Your task to perform on an android device: install app "Fetch Rewards" Image 0: 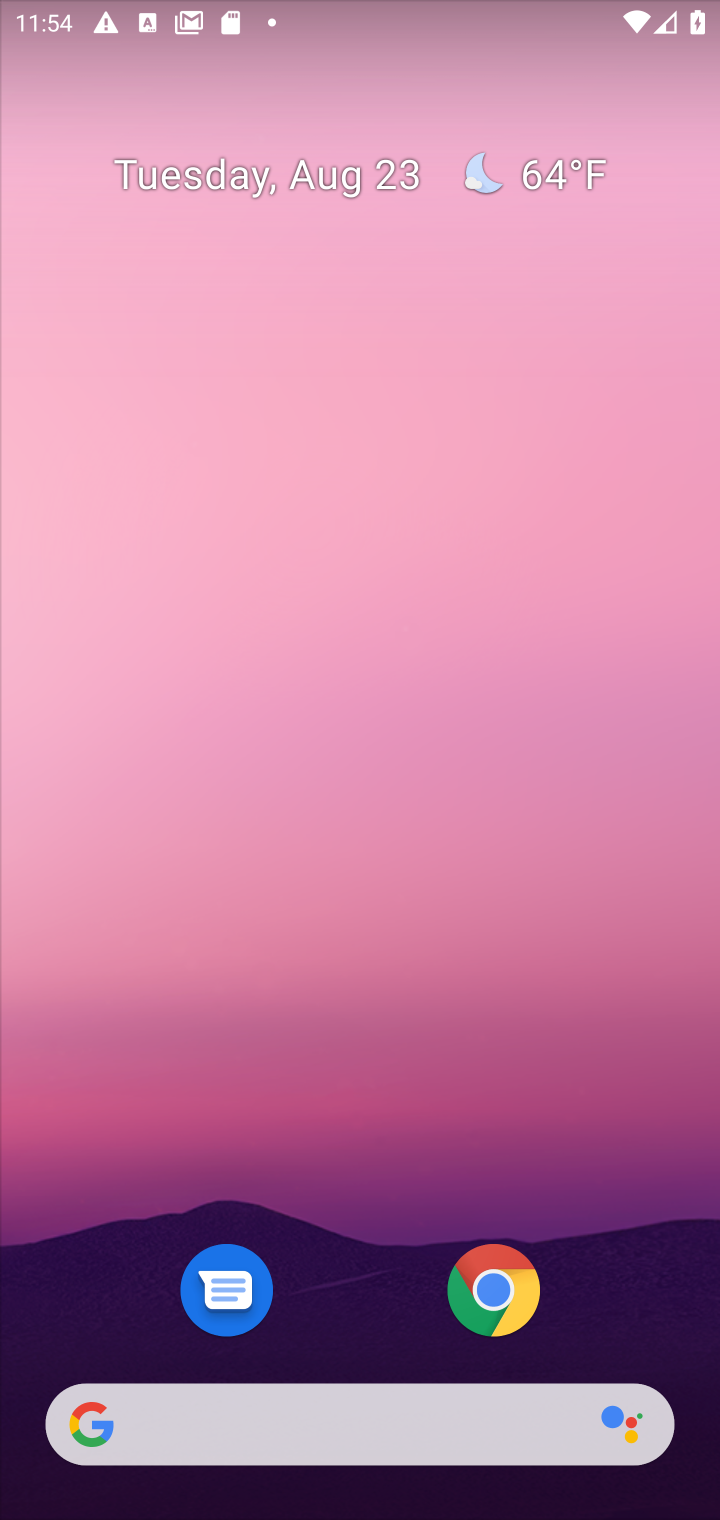
Step 0: drag from (341, 589) to (341, 89)
Your task to perform on an android device: install app "Fetch Rewards" Image 1: 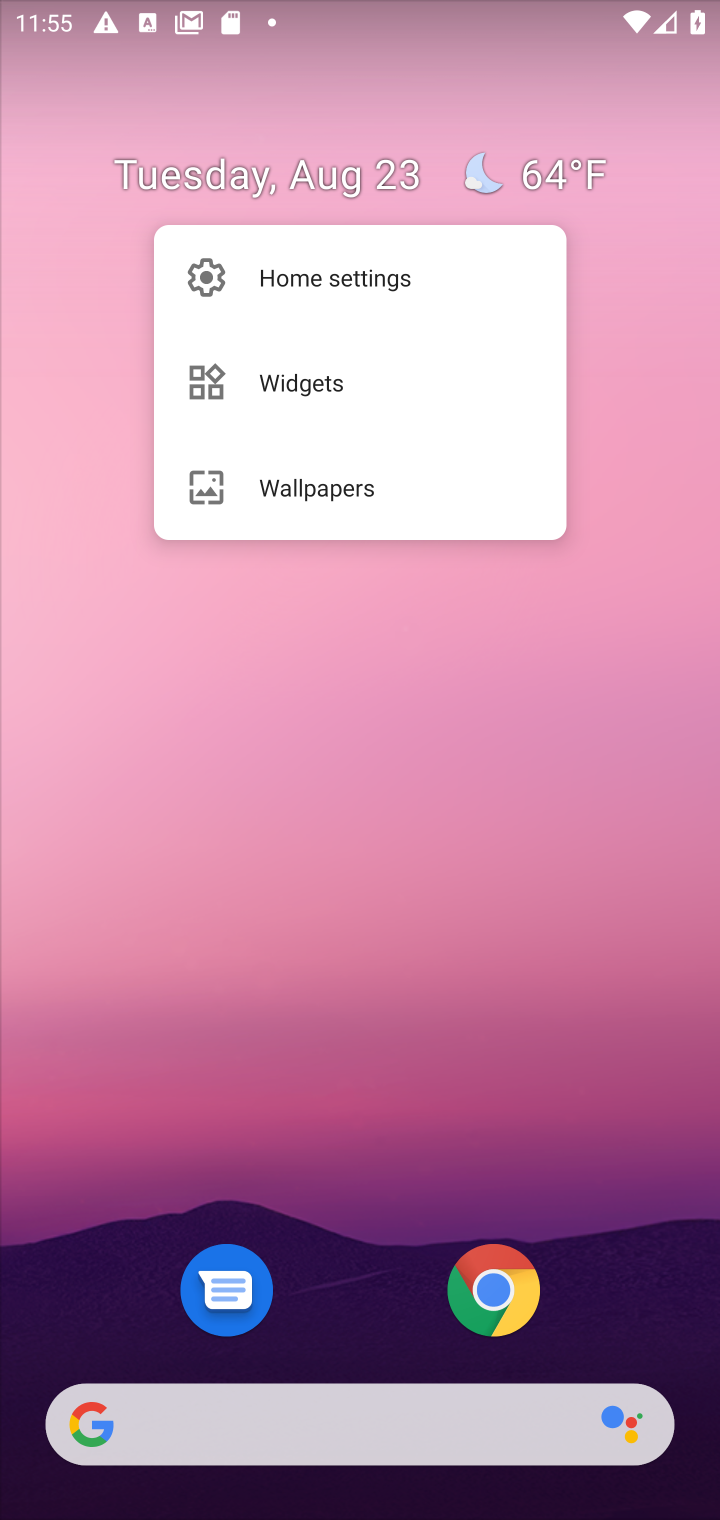
Step 1: click (442, 990)
Your task to perform on an android device: install app "Fetch Rewards" Image 2: 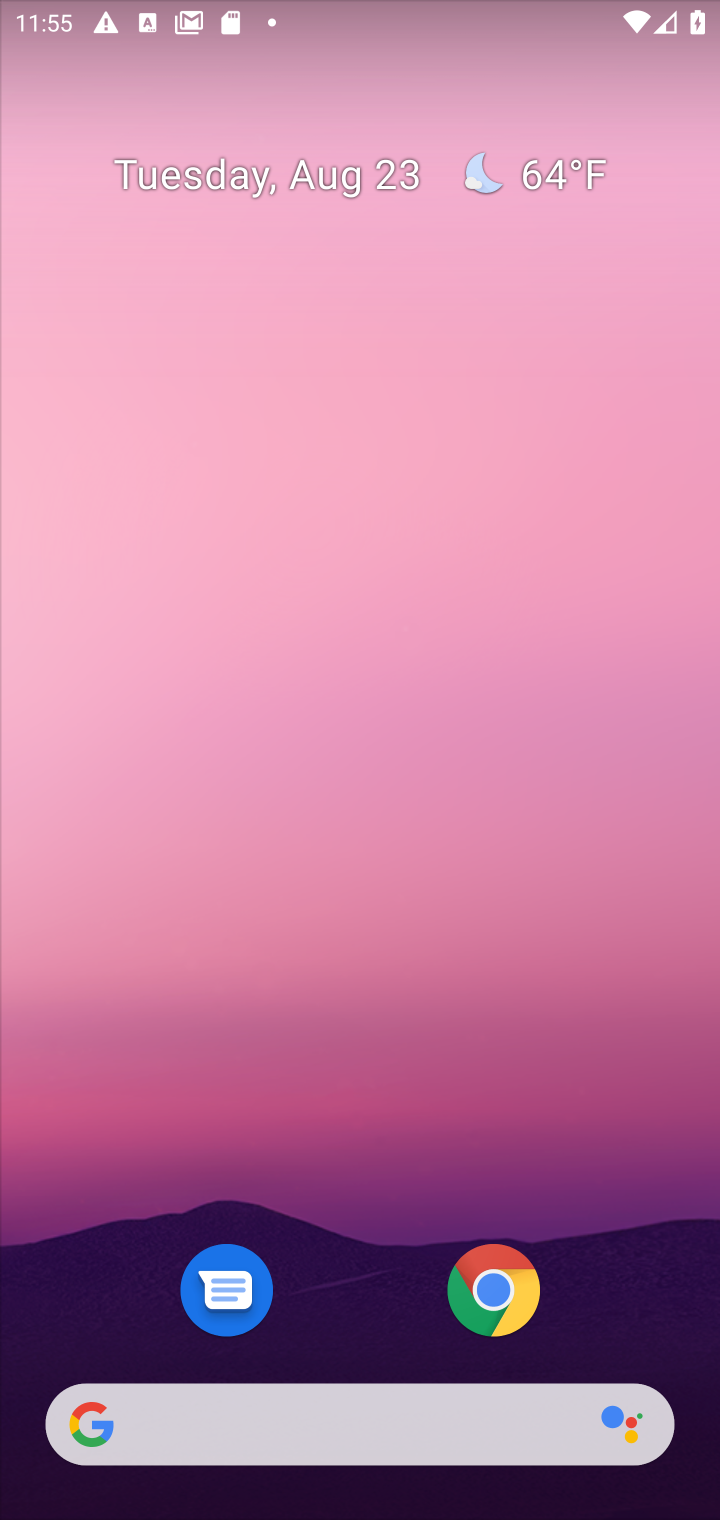
Step 2: drag from (348, 1055) to (346, 70)
Your task to perform on an android device: install app "Fetch Rewards" Image 3: 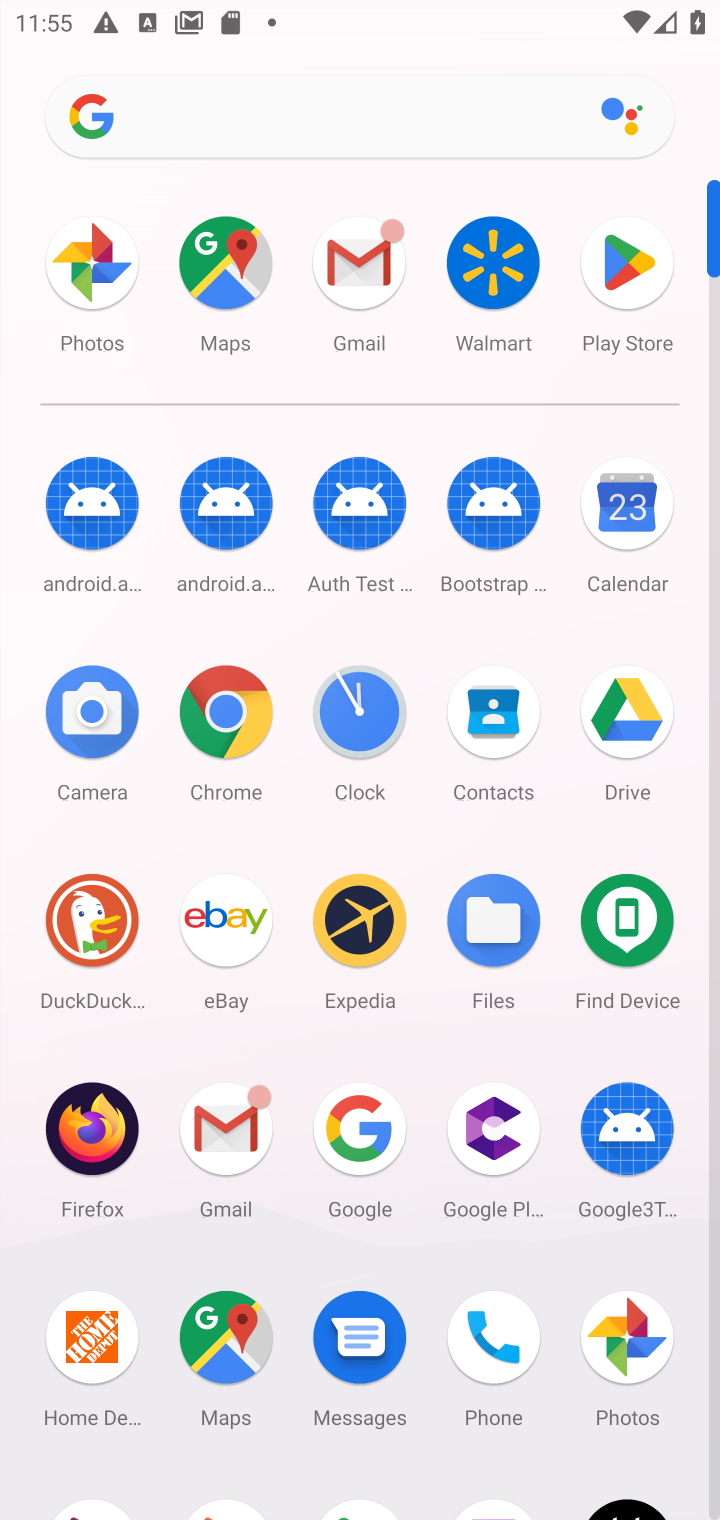
Step 3: click (622, 261)
Your task to perform on an android device: install app "Fetch Rewards" Image 4: 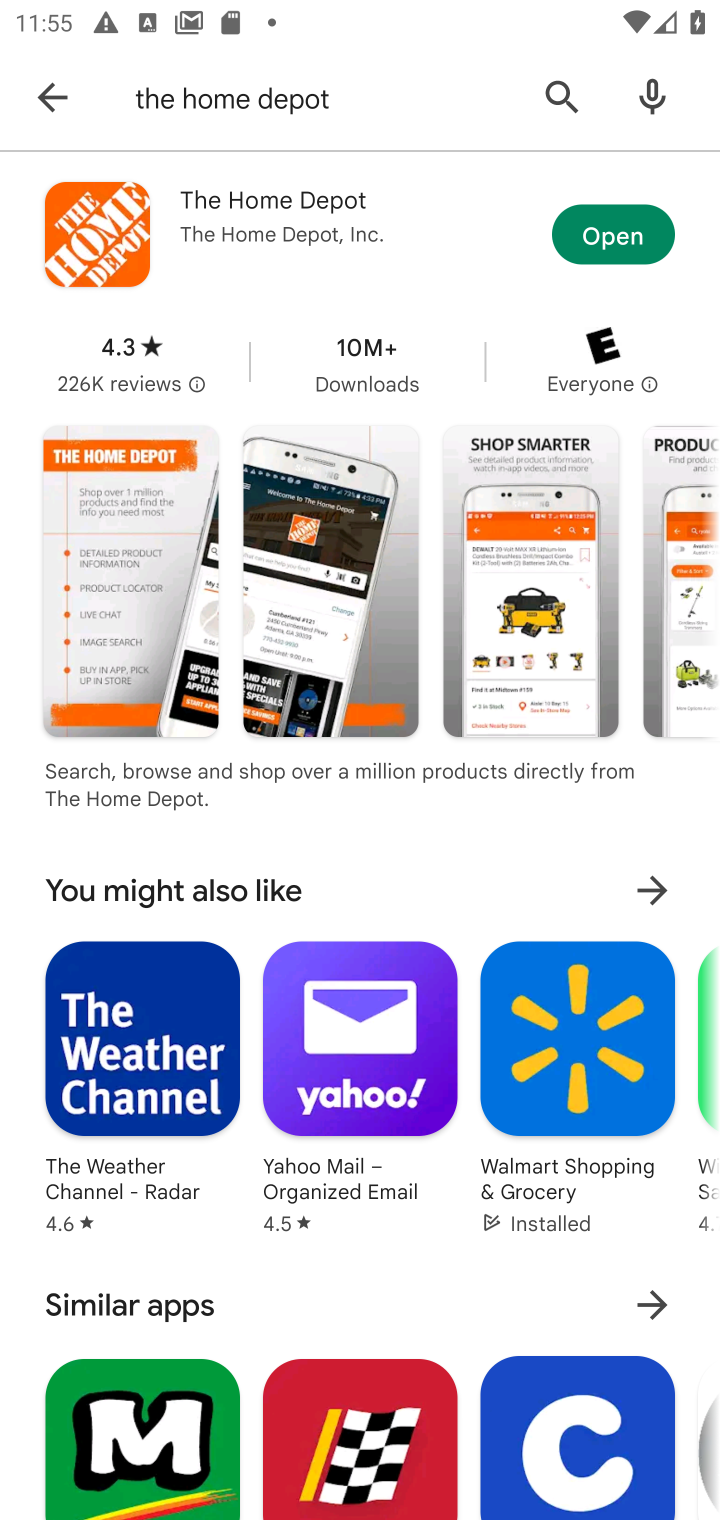
Step 4: click (548, 92)
Your task to perform on an android device: install app "Fetch Rewards" Image 5: 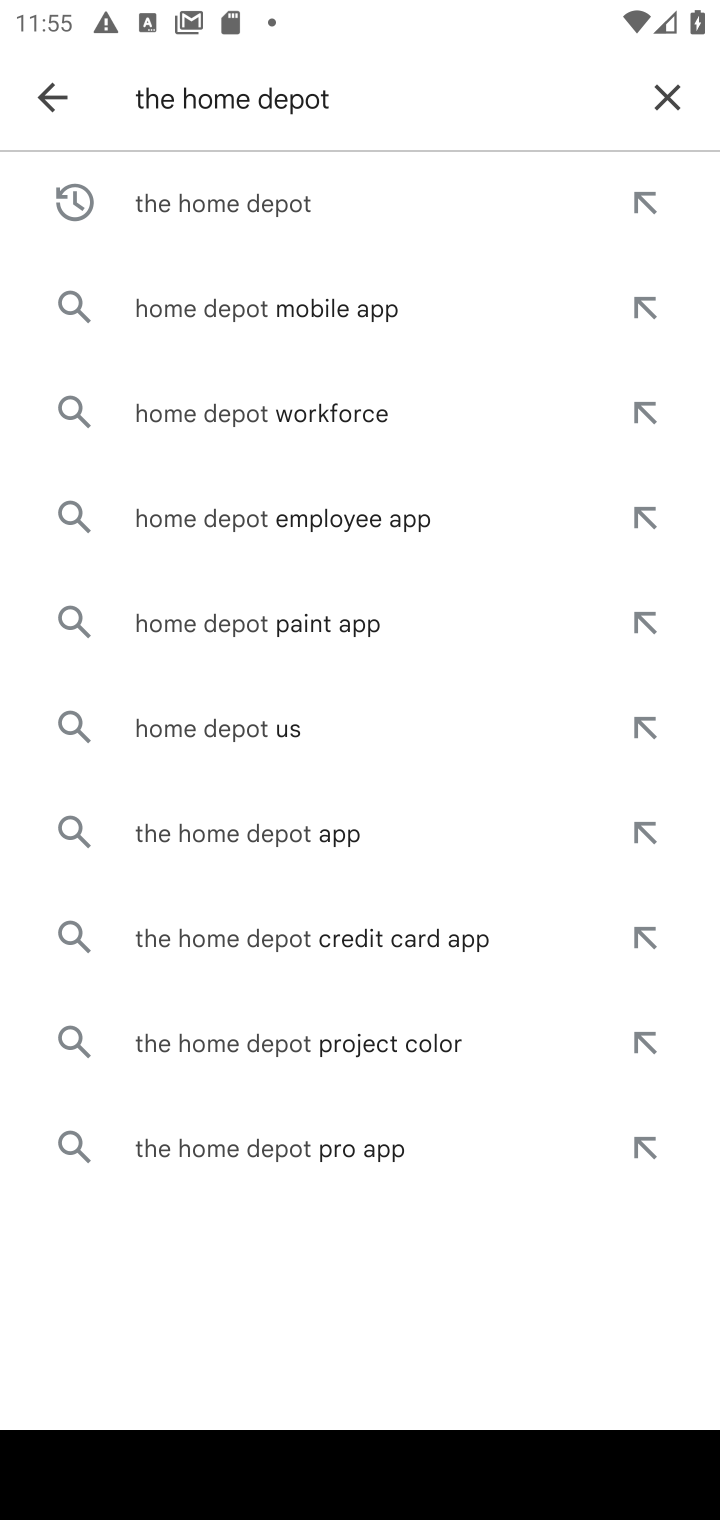
Step 5: click (661, 92)
Your task to perform on an android device: install app "Fetch Rewards" Image 6: 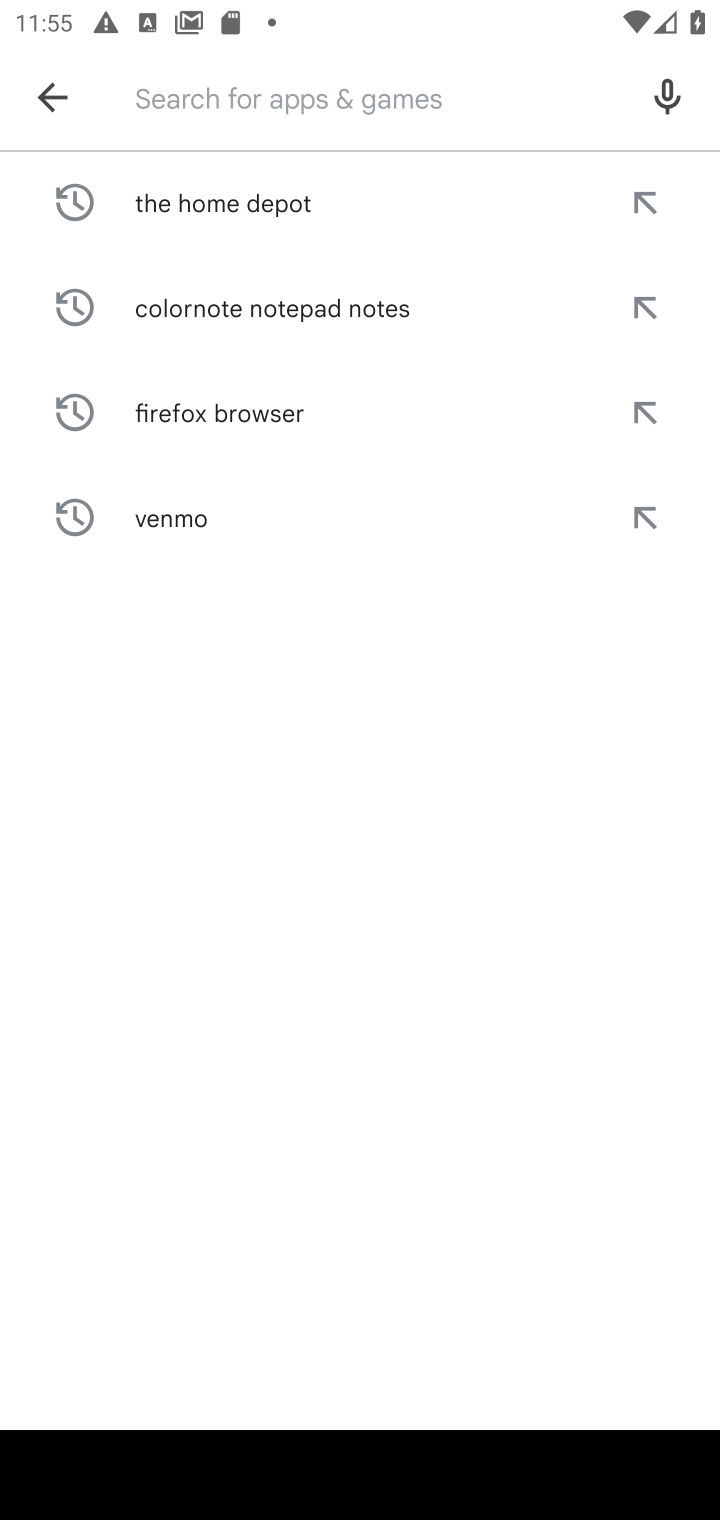
Step 6: type "Fetch Rewards"
Your task to perform on an android device: install app "Fetch Rewards" Image 7: 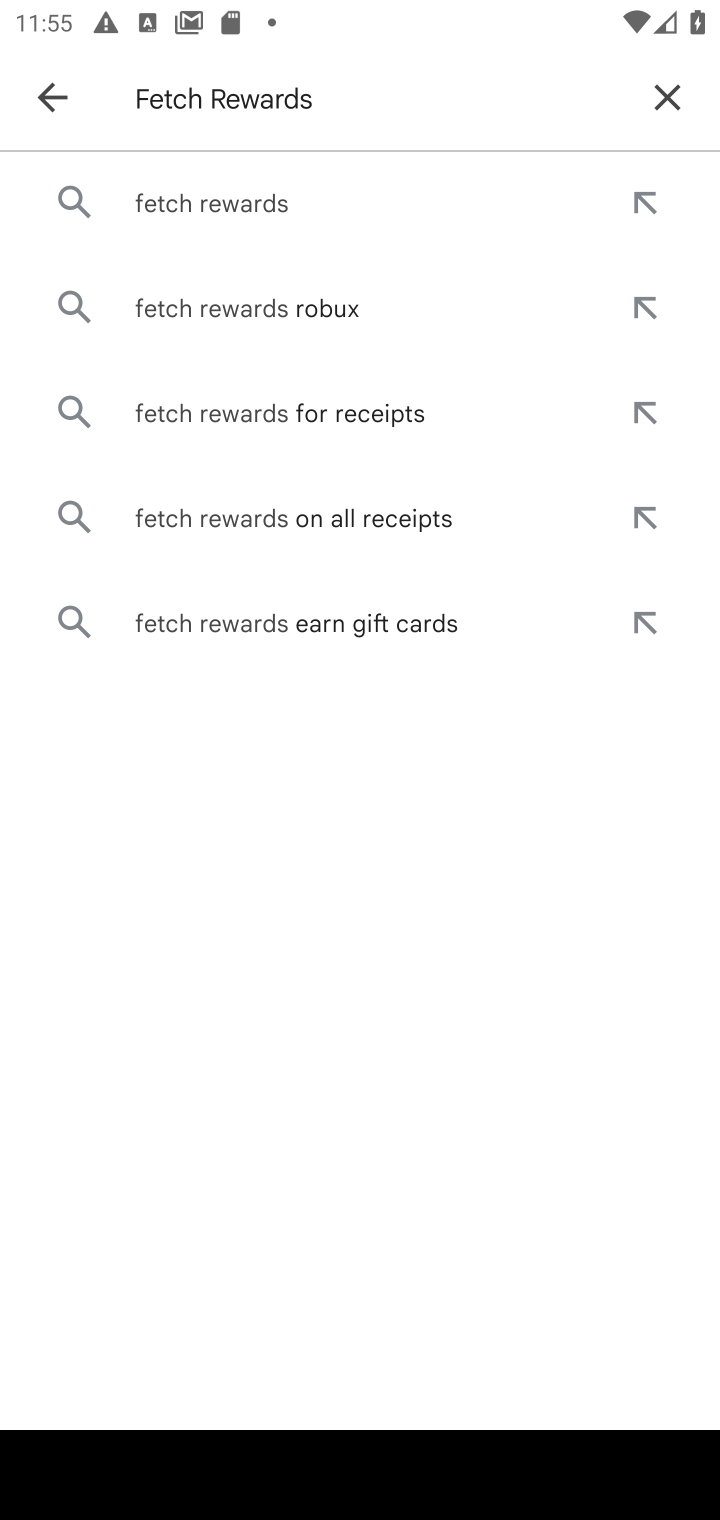
Step 7: click (247, 203)
Your task to perform on an android device: install app "Fetch Rewards" Image 8: 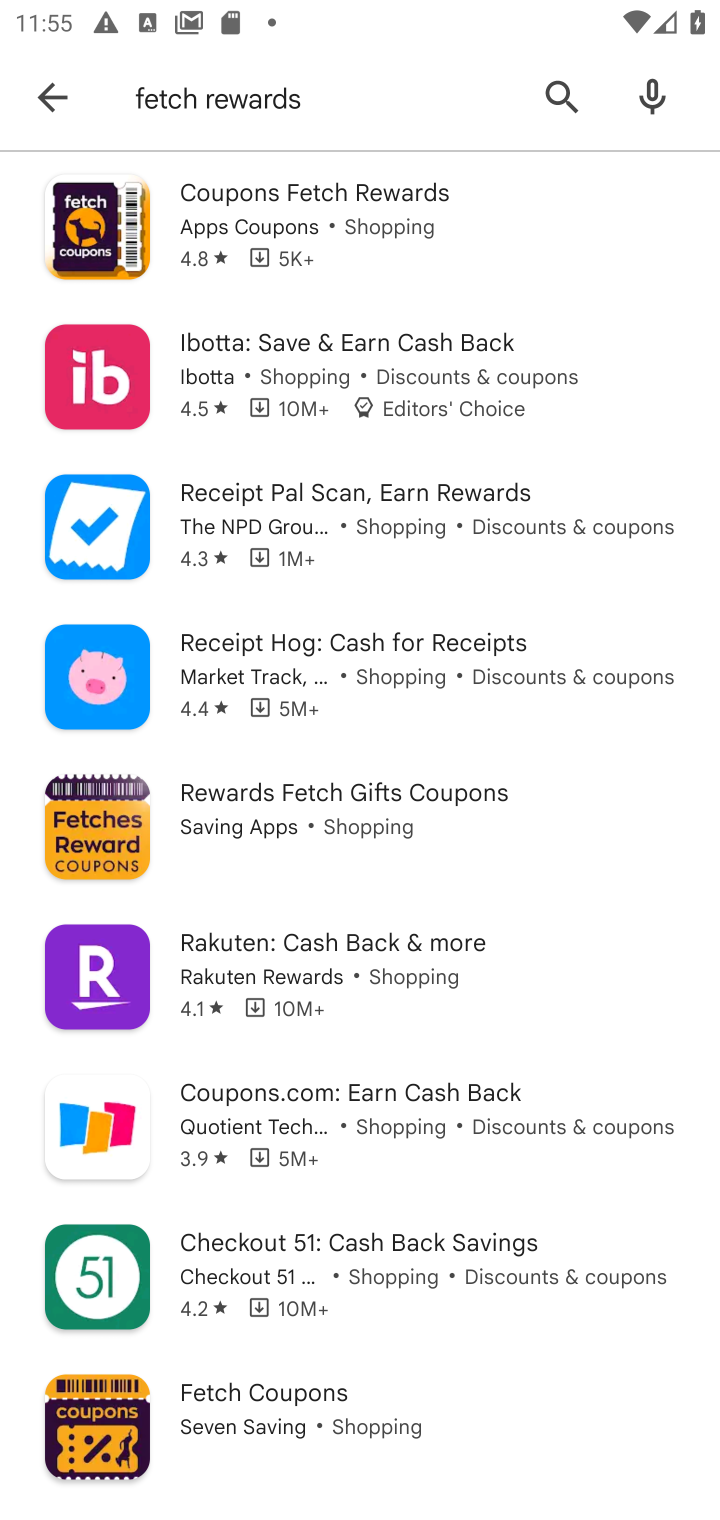
Step 8: task complete